Your task to perform on an android device: Is it going to rain today? Image 0: 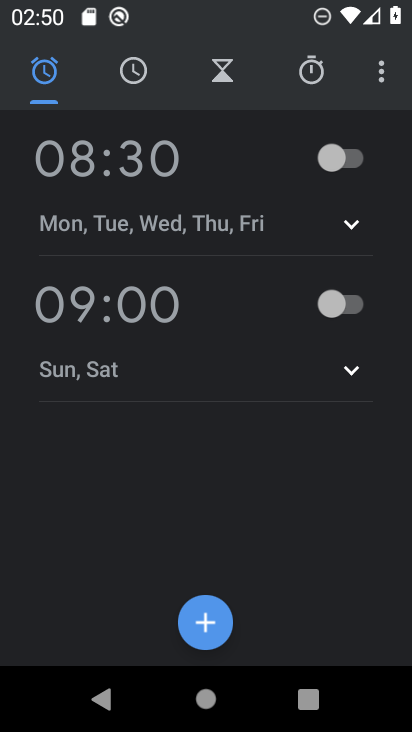
Step 0: press home button
Your task to perform on an android device: Is it going to rain today? Image 1: 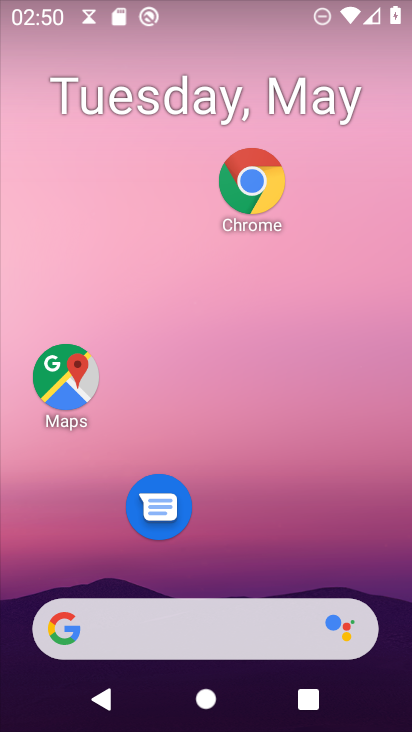
Step 1: drag from (265, 605) to (288, 357)
Your task to perform on an android device: Is it going to rain today? Image 2: 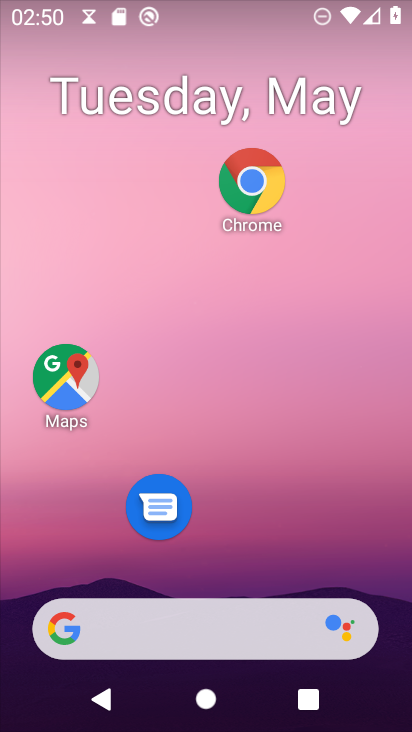
Step 2: click (254, 157)
Your task to perform on an android device: Is it going to rain today? Image 3: 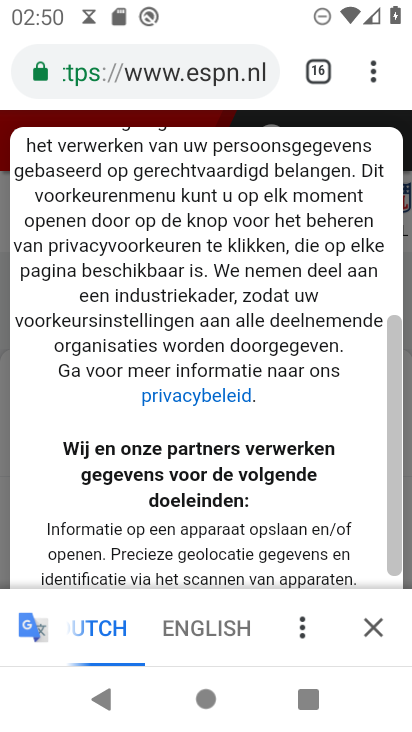
Step 3: click (363, 80)
Your task to perform on an android device: Is it going to rain today? Image 4: 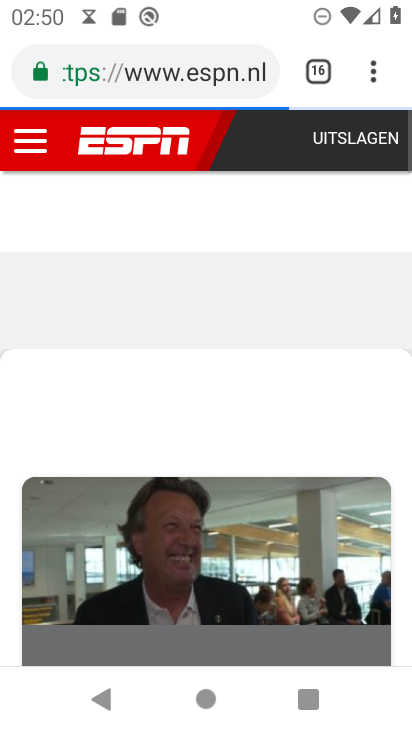
Step 4: click (380, 60)
Your task to perform on an android device: Is it going to rain today? Image 5: 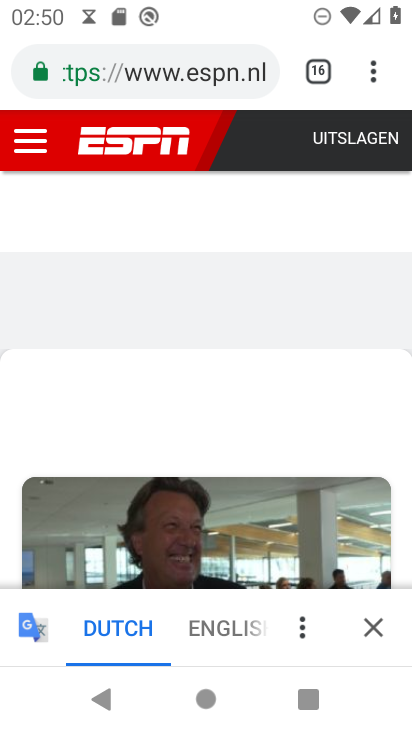
Step 5: click (362, 56)
Your task to perform on an android device: Is it going to rain today? Image 6: 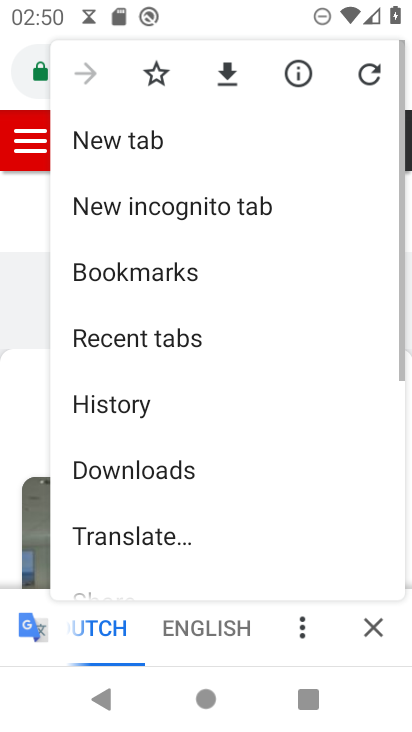
Step 6: click (146, 130)
Your task to perform on an android device: Is it going to rain today? Image 7: 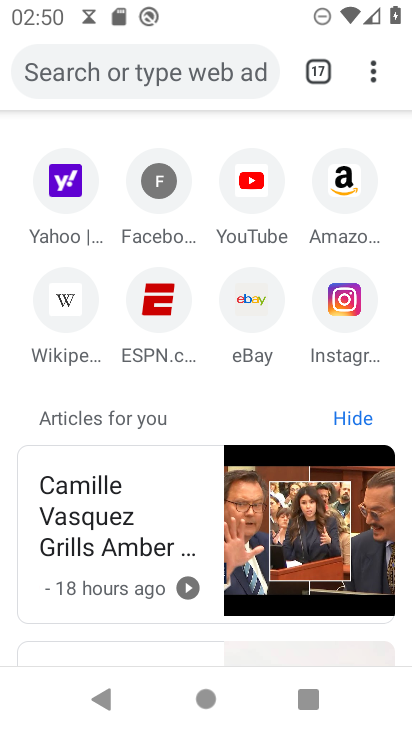
Step 7: click (190, 50)
Your task to perform on an android device: Is it going to rain today? Image 8: 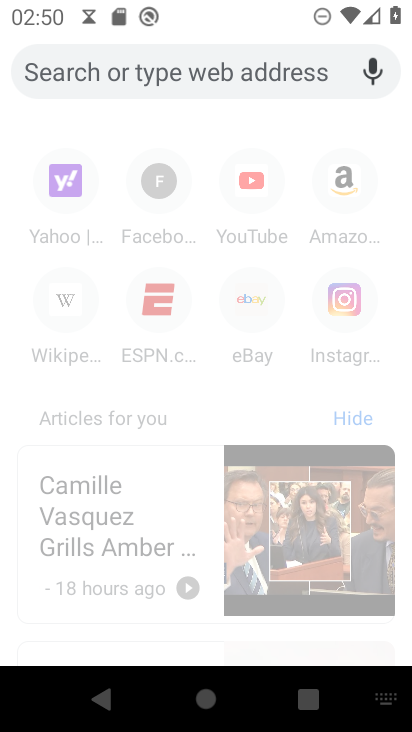
Step 8: type "Is it going to rain today?"
Your task to perform on an android device: Is it going to rain today? Image 9: 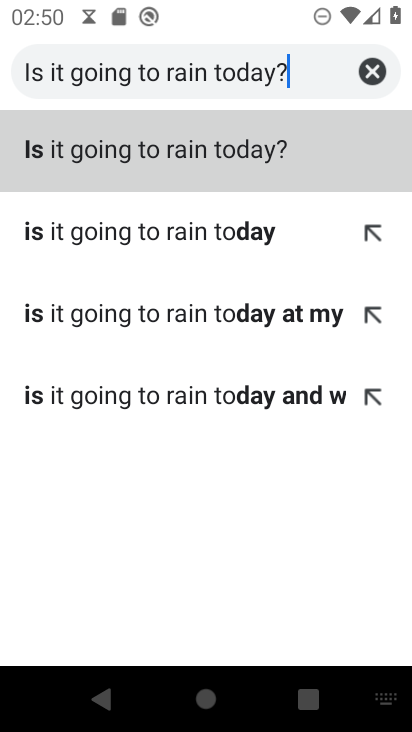
Step 9: click (286, 122)
Your task to perform on an android device: Is it going to rain today? Image 10: 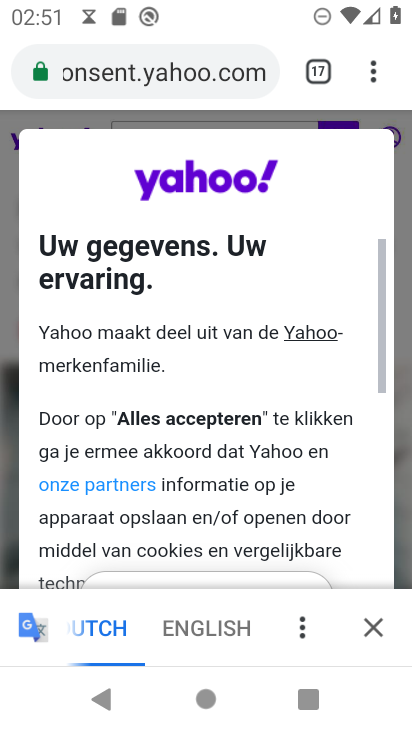
Step 10: click (224, 627)
Your task to perform on an android device: Is it going to rain today? Image 11: 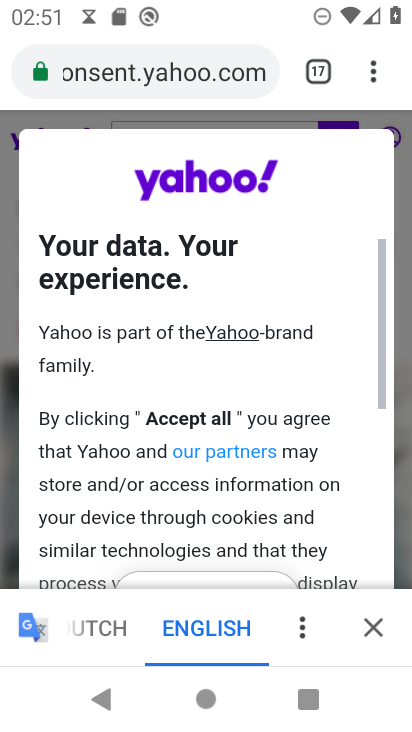
Step 11: click (378, 635)
Your task to perform on an android device: Is it going to rain today? Image 12: 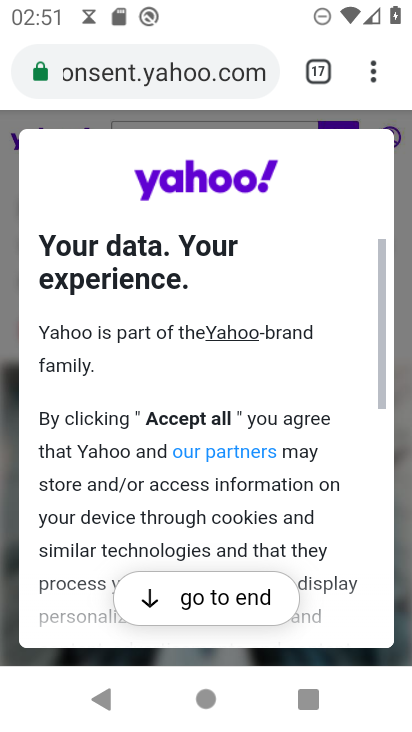
Step 12: task complete